Your task to perform on an android device: Go to wifi settings Image 0: 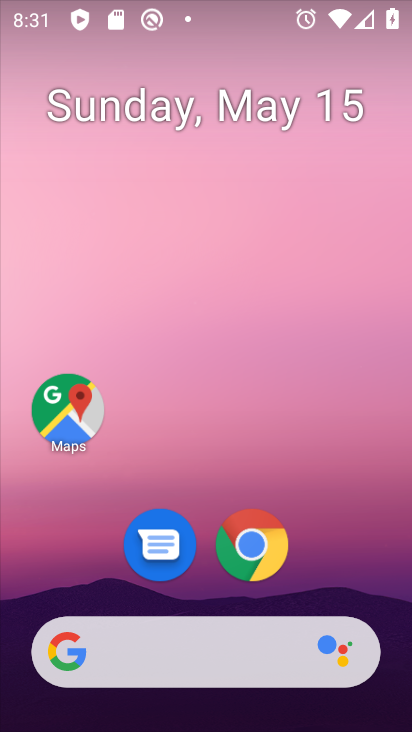
Step 0: drag from (369, 572) to (375, 79)
Your task to perform on an android device: Go to wifi settings Image 1: 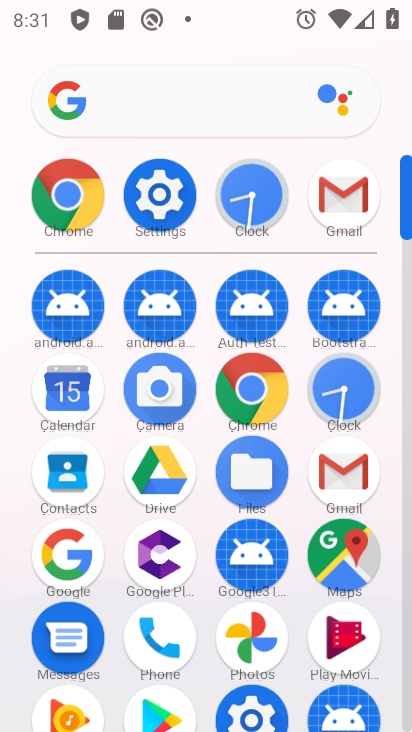
Step 1: click (173, 214)
Your task to perform on an android device: Go to wifi settings Image 2: 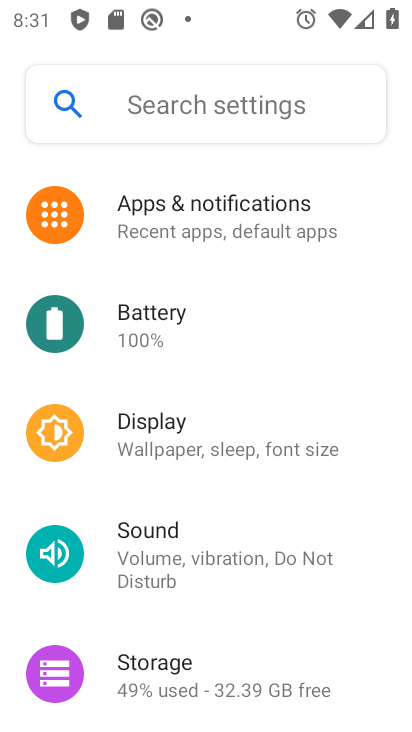
Step 2: drag from (370, 669) to (376, 348)
Your task to perform on an android device: Go to wifi settings Image 3: 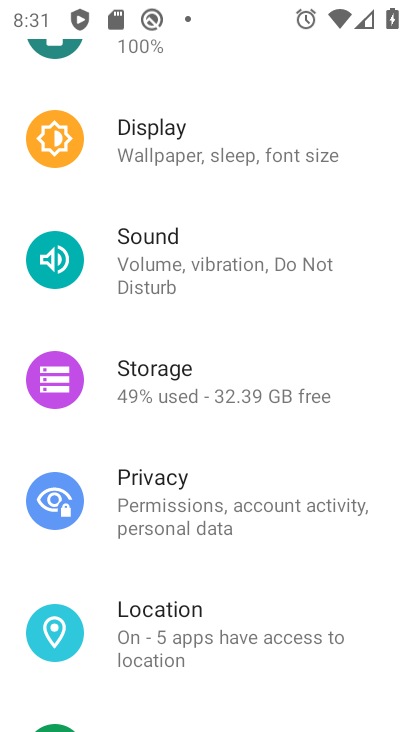
Step 3: drag from (361, 665) to (375, 392)
Your task to perform on an android device: Go to wifi settings Image 4: 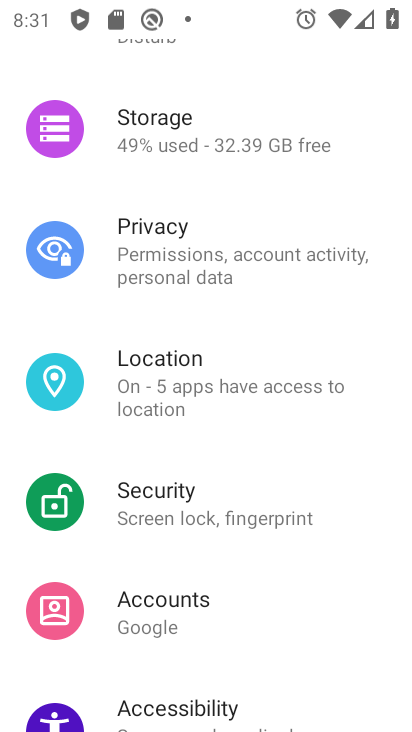
Step 4: drag from (350, 646) to (344, 419)
Your task to perform on an android device: Go to wifi settings Image 5: 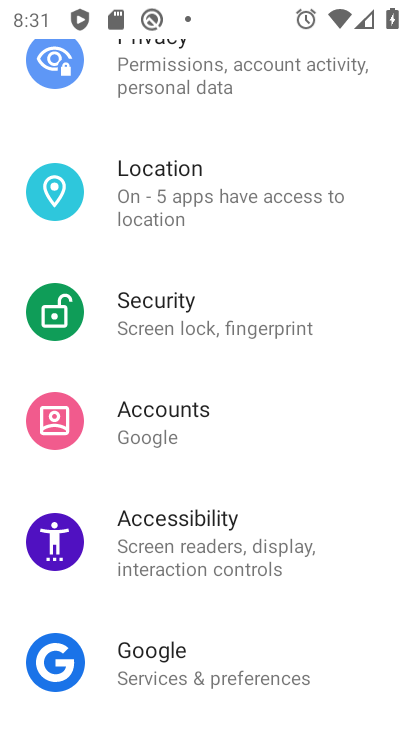
Step 5: drag from (346, 669) to (359, 385)
Your task to perform on an android device: Go to wifi settings Image 6: 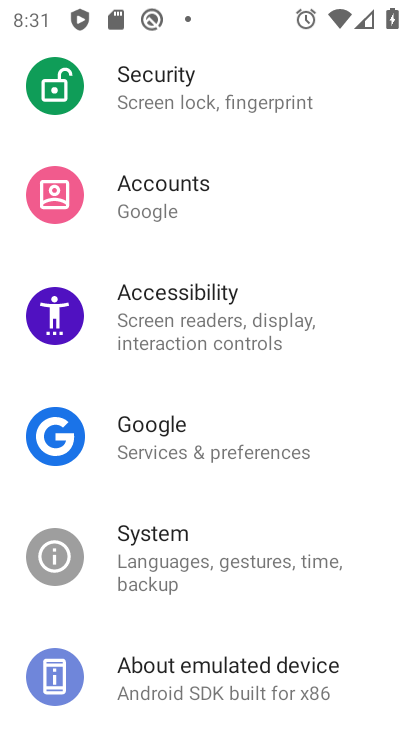
Step 6: drag from (350, 678) to (376, 358)
Your task to perform on an android device: Go to wifi settings Image 7: 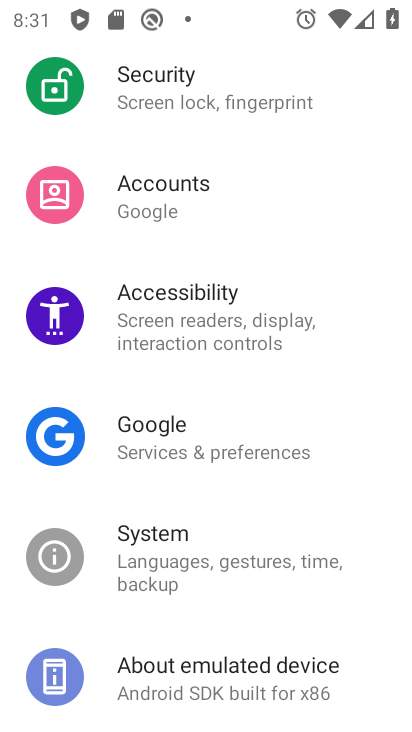
Step 7: drag from (373, 183) to (362, 514)
Your task to perform on an android device: Go to wifi settings Image 8: 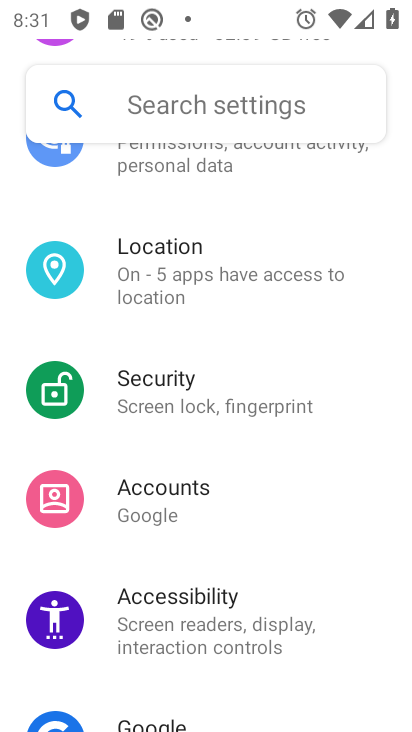
Step 8: drag from (370, 241) to (356, 525)
Your task to perform on an android device: Go to wifi settings Image 9: 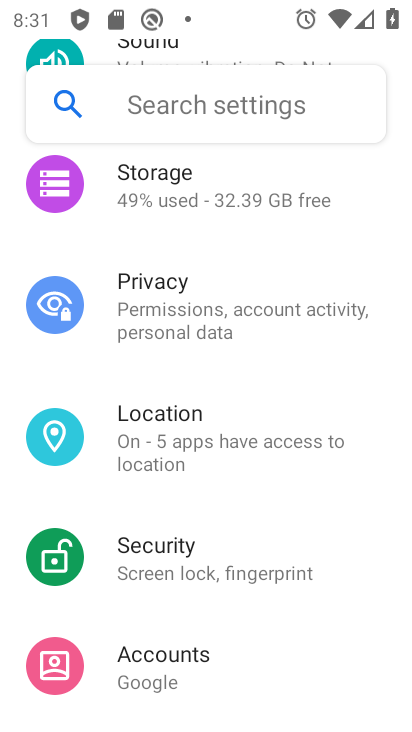
Step 9: drag from (360, 226) to (367, 534)
Your task to perform on an android device: Go to wifi settings Image 10: 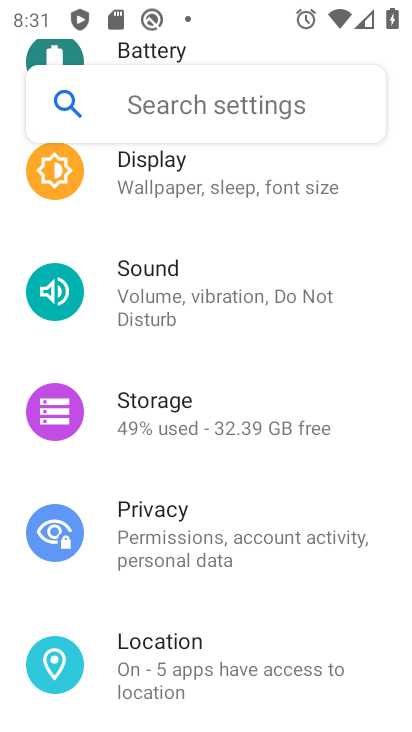
Step 10: drag from (357, 243) to (357, 521)
Your task to perform on an android device: Go to wifi settings Image 11: 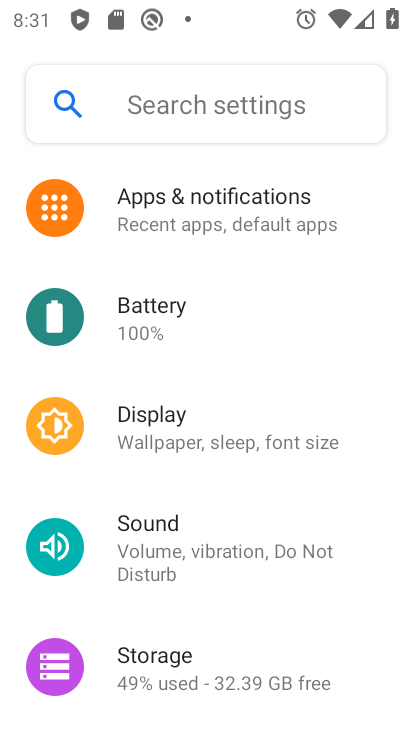
Step 11: drag from (366, 194) to (356, 460)
Your task to perform on an android device: Go to wifi settings Image 12: 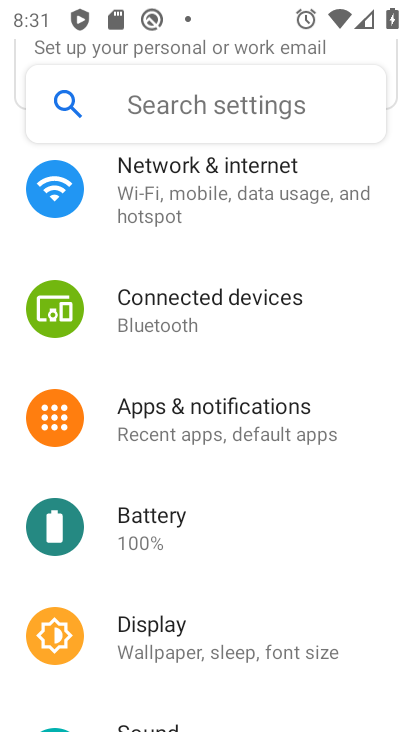
Step 12: click (290, 184)
Your task to perform on an android device: Go to wifi settings Image 13: 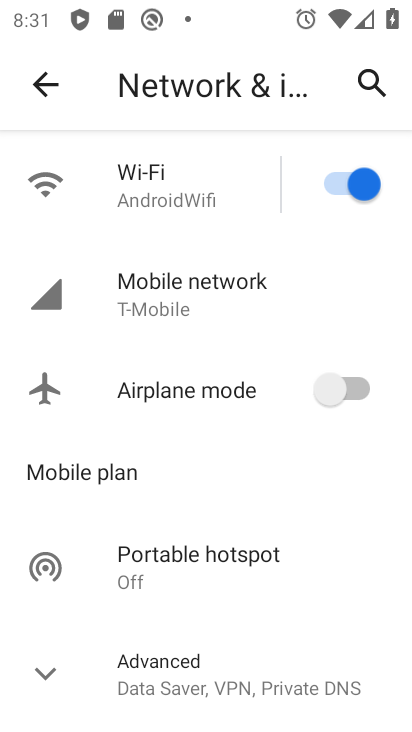
Step 13: click (191, 201)
Your task to perform on an android device: Go to wifi settings Image 14: 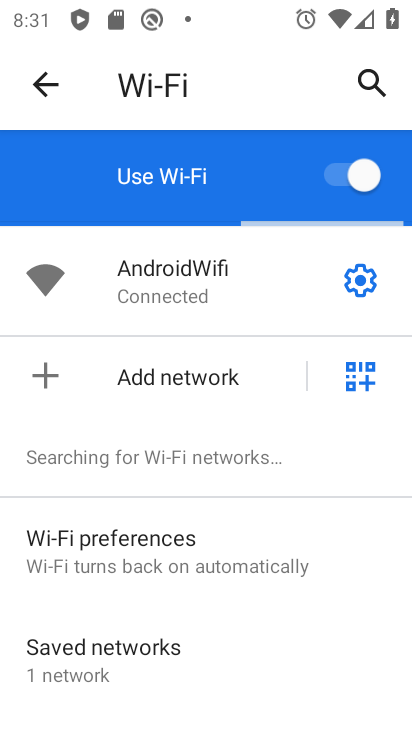
Step 14: task complete